Your task to perform on an android device: turn on location history Image 0: 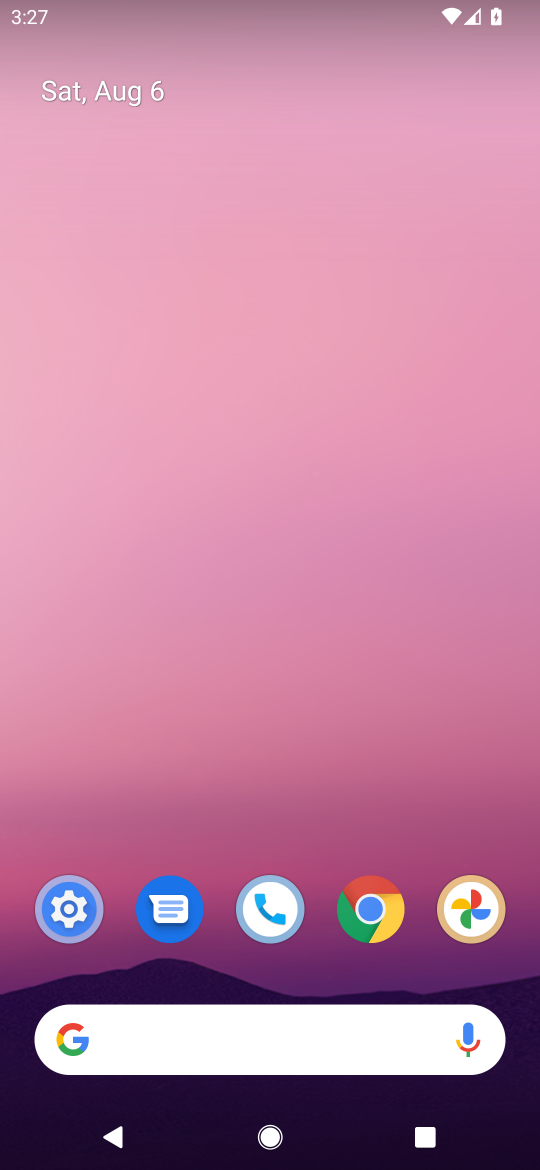
Step 0: drag from (209, 952) to (314, 44)
Your task to perform on an android device: turn on location history Image 1: 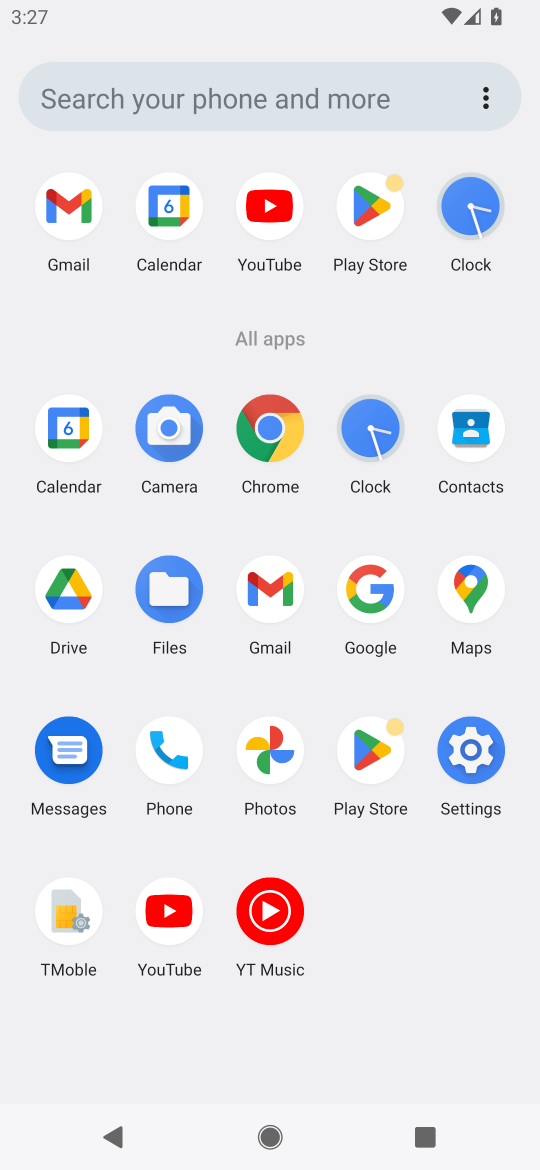
Step 1: click (456, 758)
Your task to perform on an android device: turn on location history Image 2: 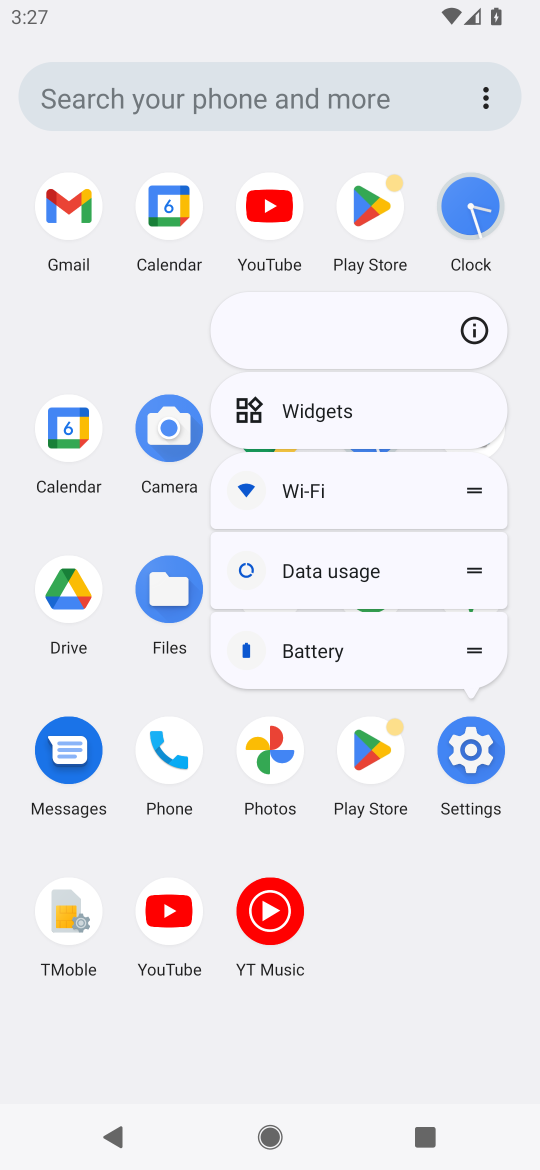
Step 2: click (482, 761)
Your task to perform on an android device: turn on location history Image 3: 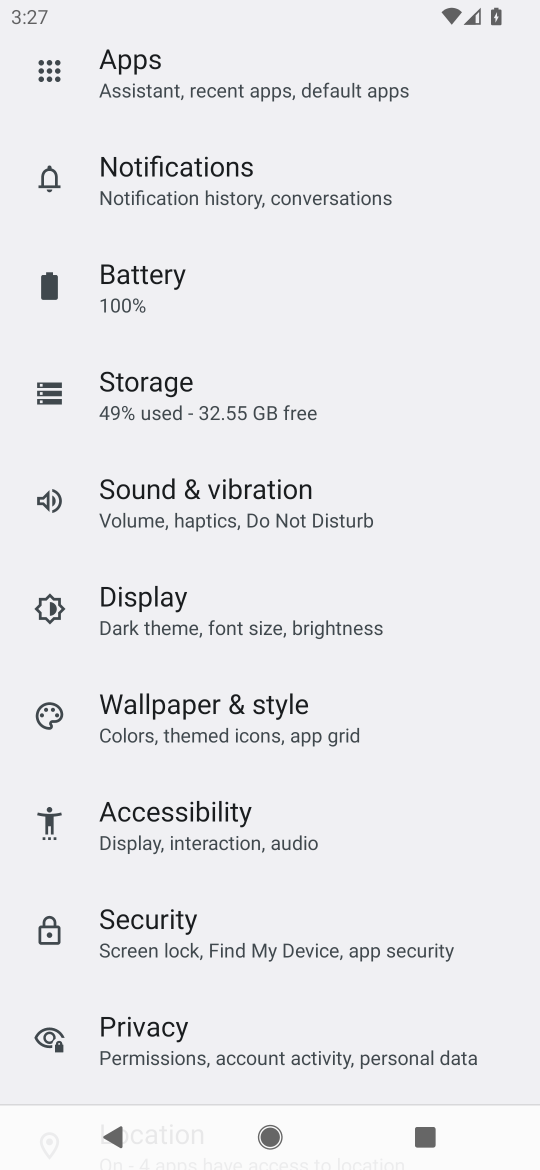
Step 3: drag from (183, 1034) to (339, 170)
Your task to perform on an android device: turn on location history Image 4: 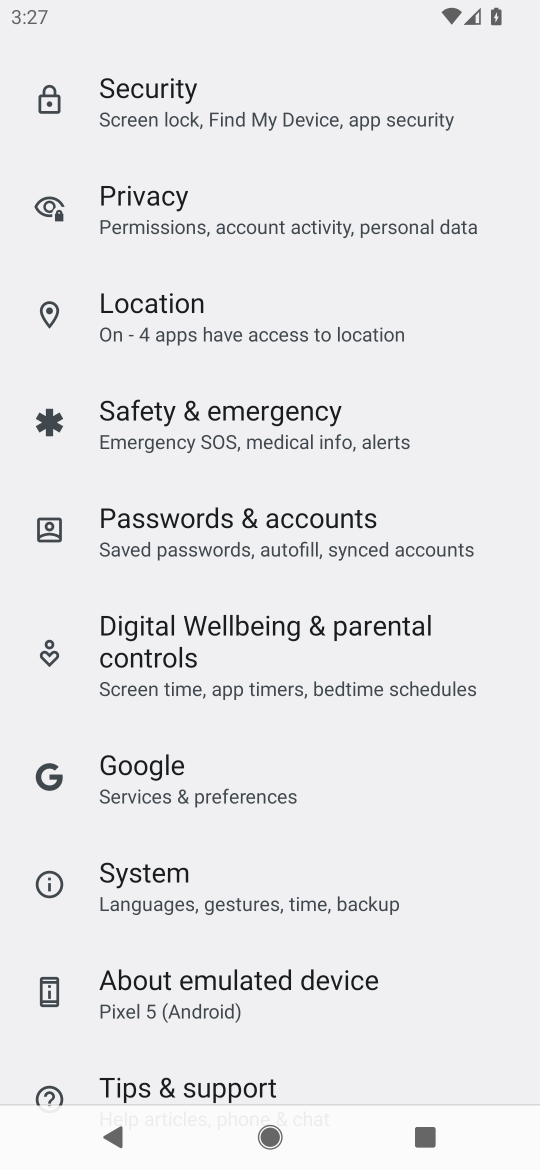
Step 4: click (162, 301)
Your task to perform on an android device: turn on location history Image 5: 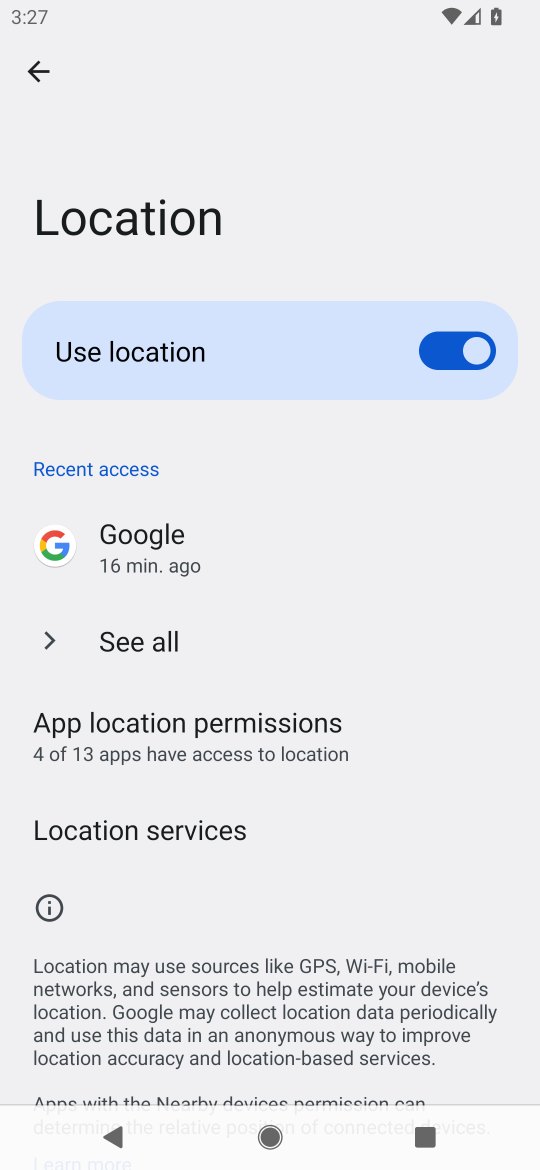
Step 5: click (190, 836)
Your task to perform on an android device: turn on location history Image 6: 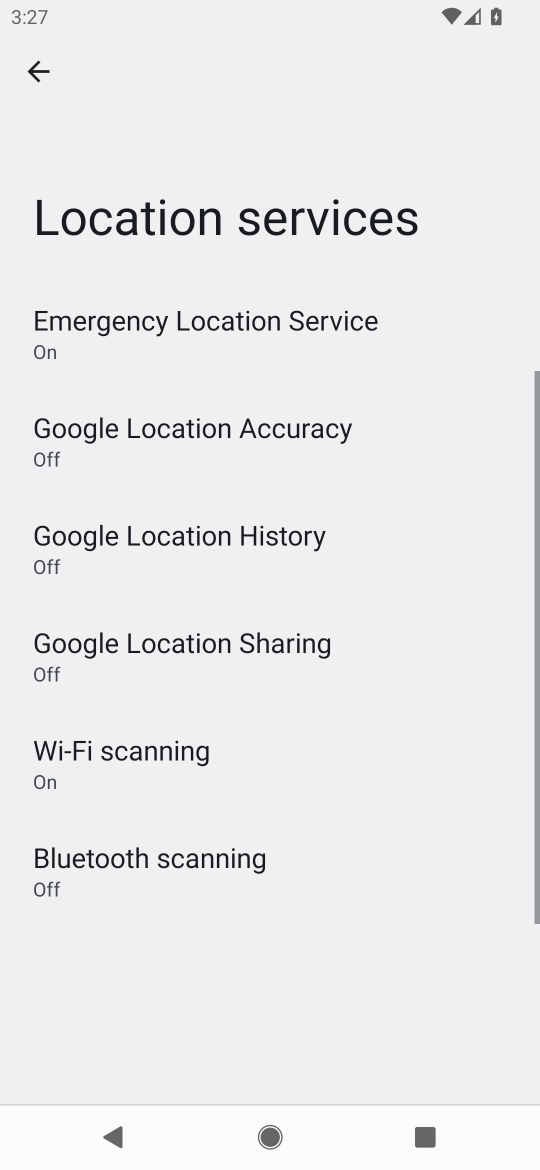
Step 6: click (160, 539)
Your task to perform on an android device: turn on location history Image 7: 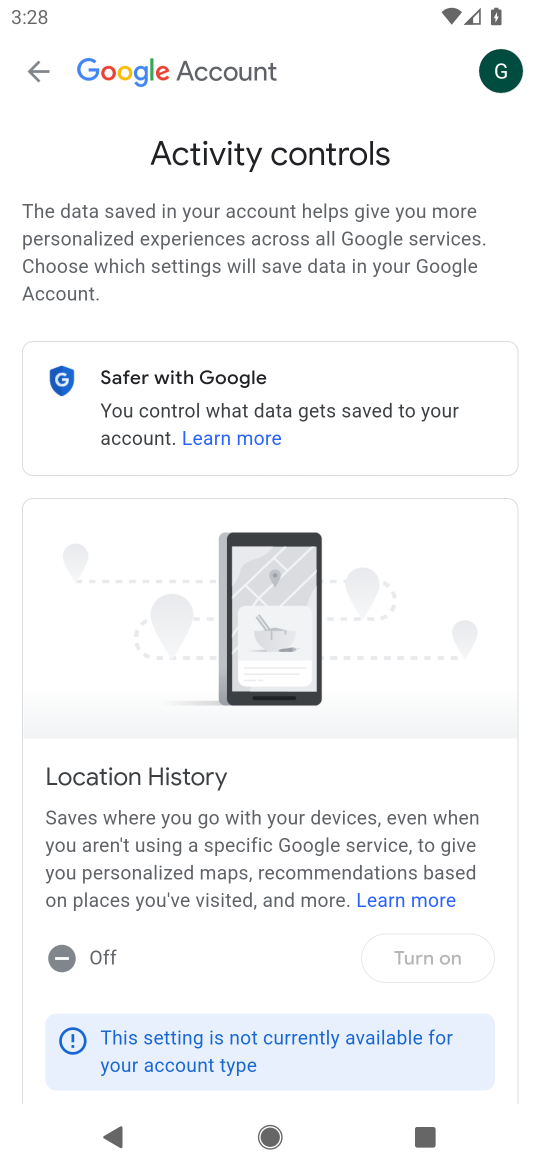
Step 7: task complete